Your task to perform on an android device: Open accessibility settings Image 0: 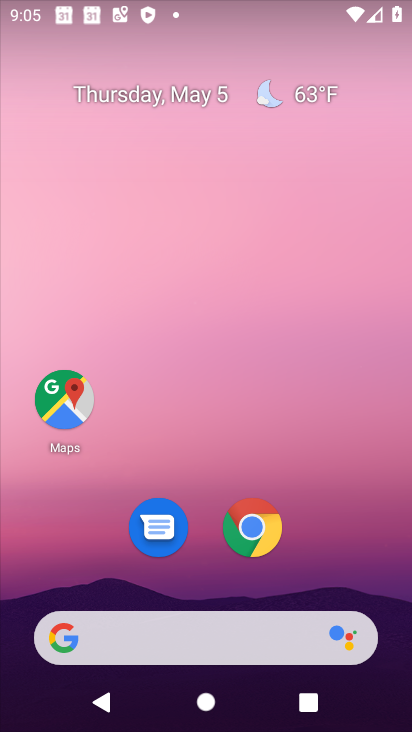
Step 0: drag from (259, 708) to (401, 45)
Your task to perform on an android device: Open accessibility settings Image 1: 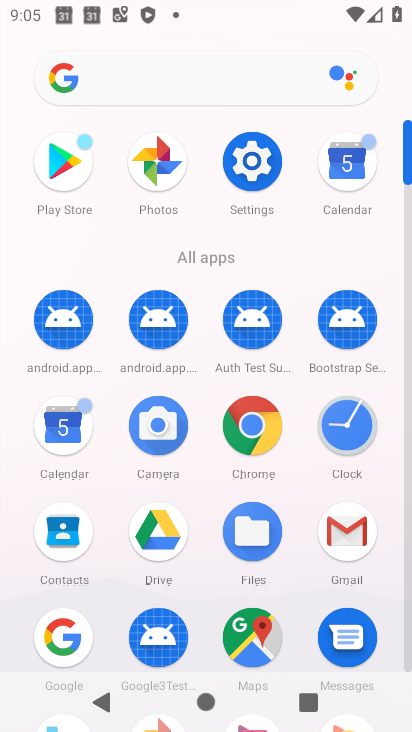
Step 1: click (252, 154)
Your task to perform on an android device: Open accessibility settings Image 2: 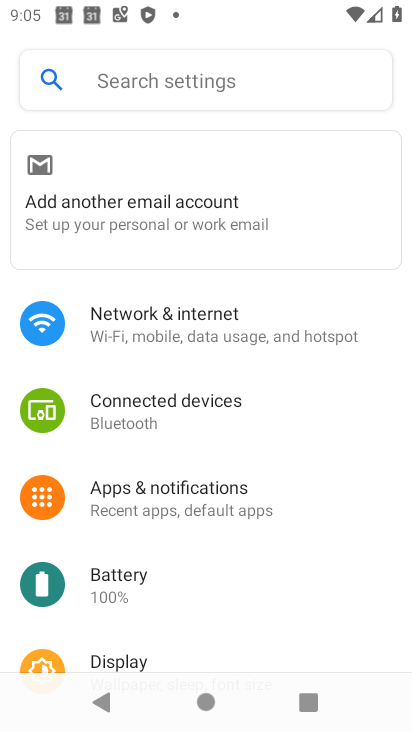
Step 2: drag from (285, 603) to (266, 114)
Your task to perform on an android device: Open accessibility settings Image 3: 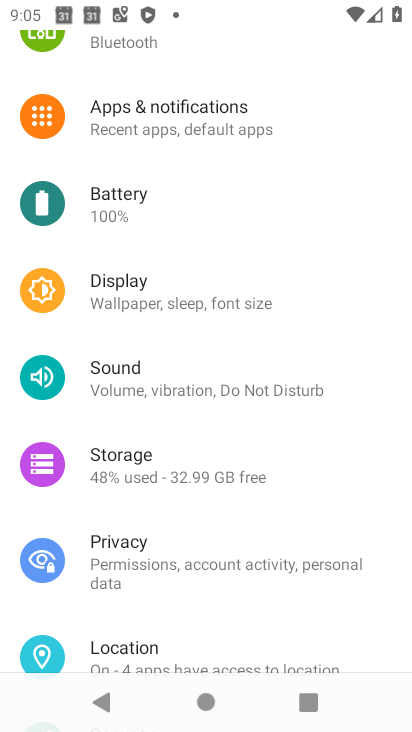
Step 3: drag from (274, 662) to (257, 145)
Your task to perform on an android device: Open accessibility settings Image 4: 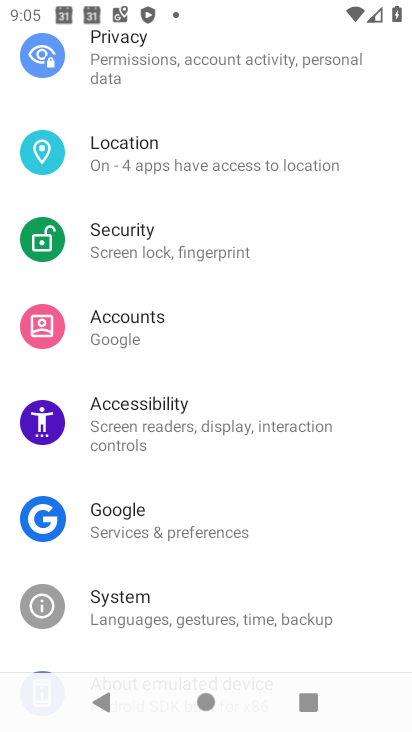
Step 4: click (219, 422)
Your task to perform on an android device: Open accessibility settings Image 5: 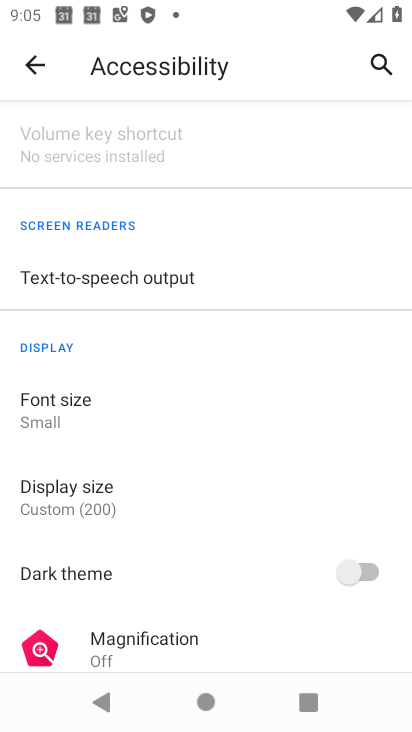
Step 5: task complete